Your task to perform on an android device: create a new album in the google photos Image 0: 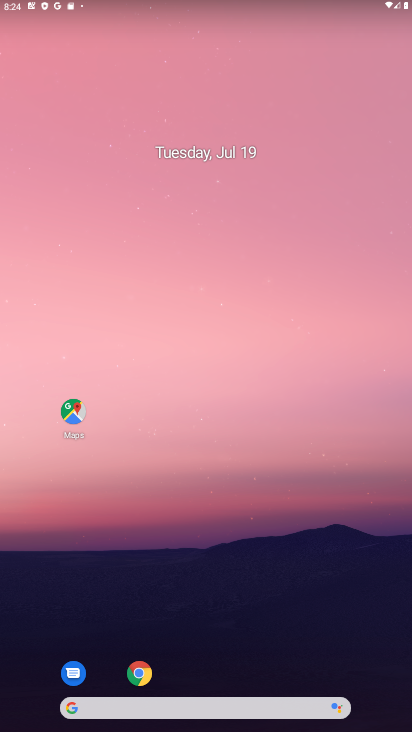
Step 0: drag from (216, 674) to (132, 0)
Your task to perform on an android device: create a new album in the google photos Image 1: 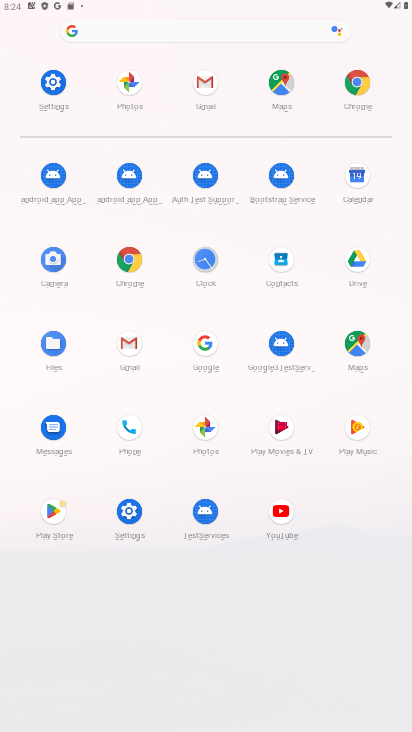
Step 1: click (137, 107)
Your task to perform on an android device: create a new album in the google photos Image 2: 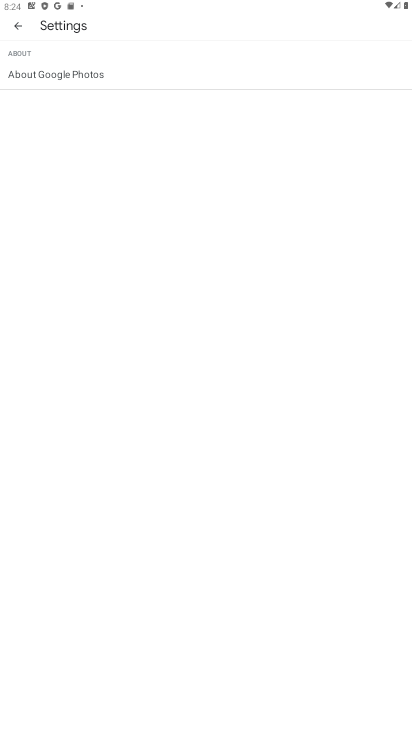
Step 2: task complete